Your task to perform on an android device: Open Wikipedia Image 0: 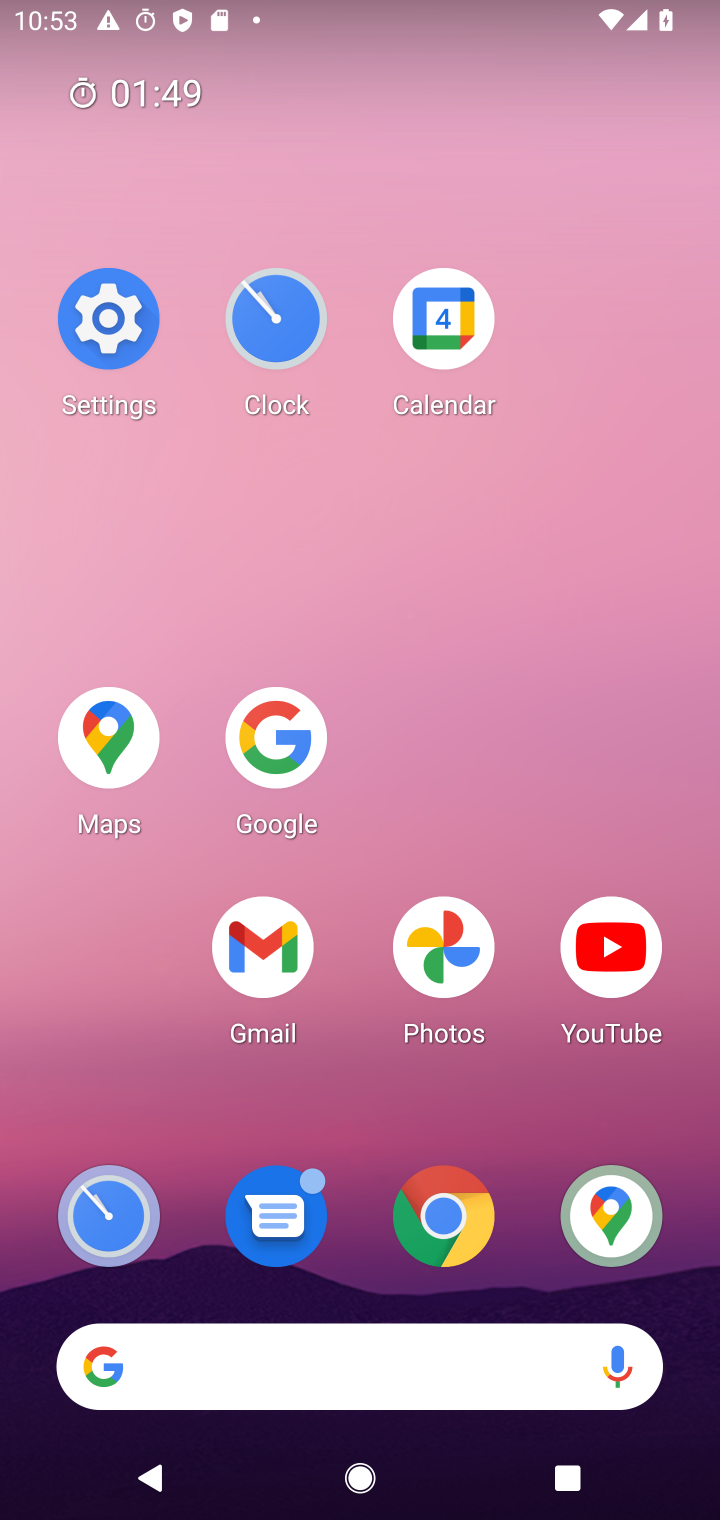
Step 0: click (450, 1197)
Your task to perform on an android device: Open Wikipedia Image 1: 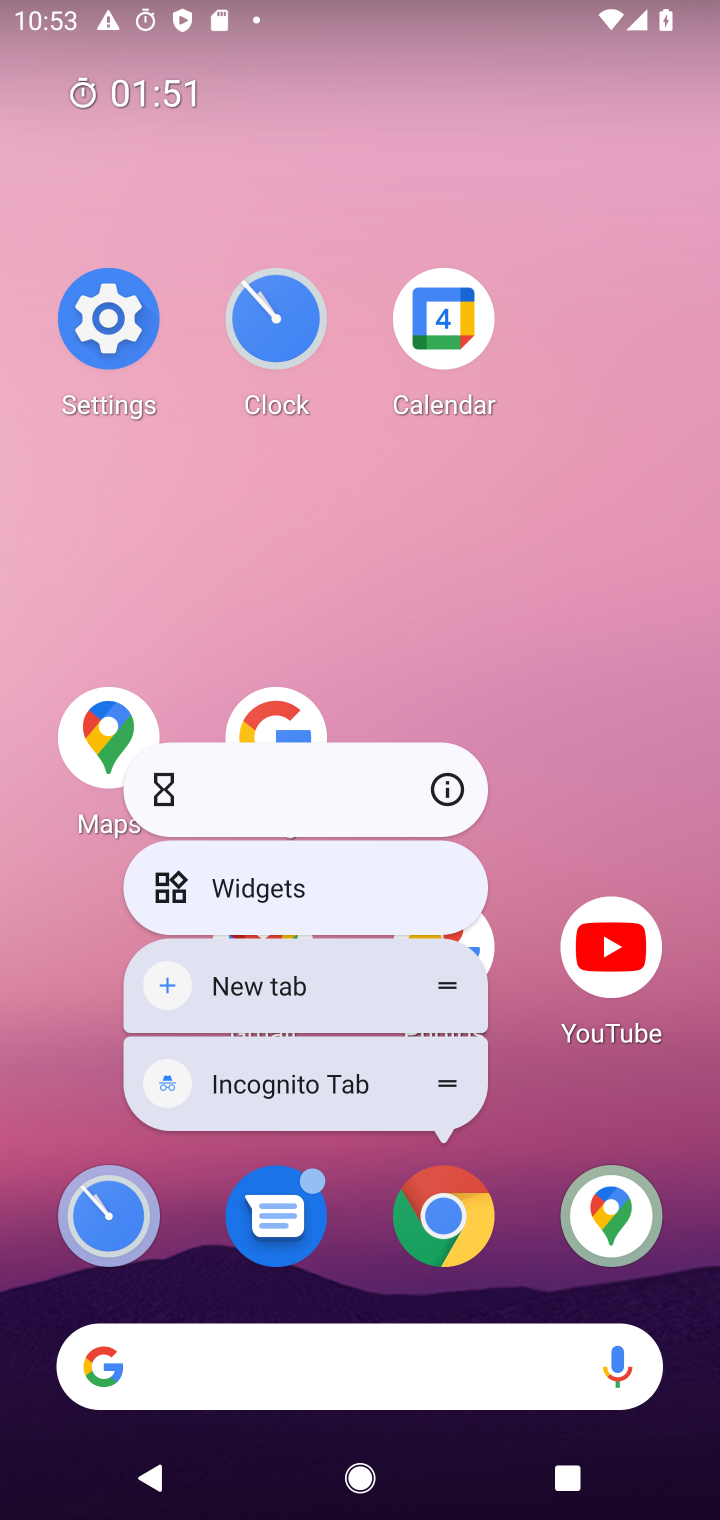
Step 1: click (450, 1197)
Your task to perform on an android device: Open Wikipedia Image 2: 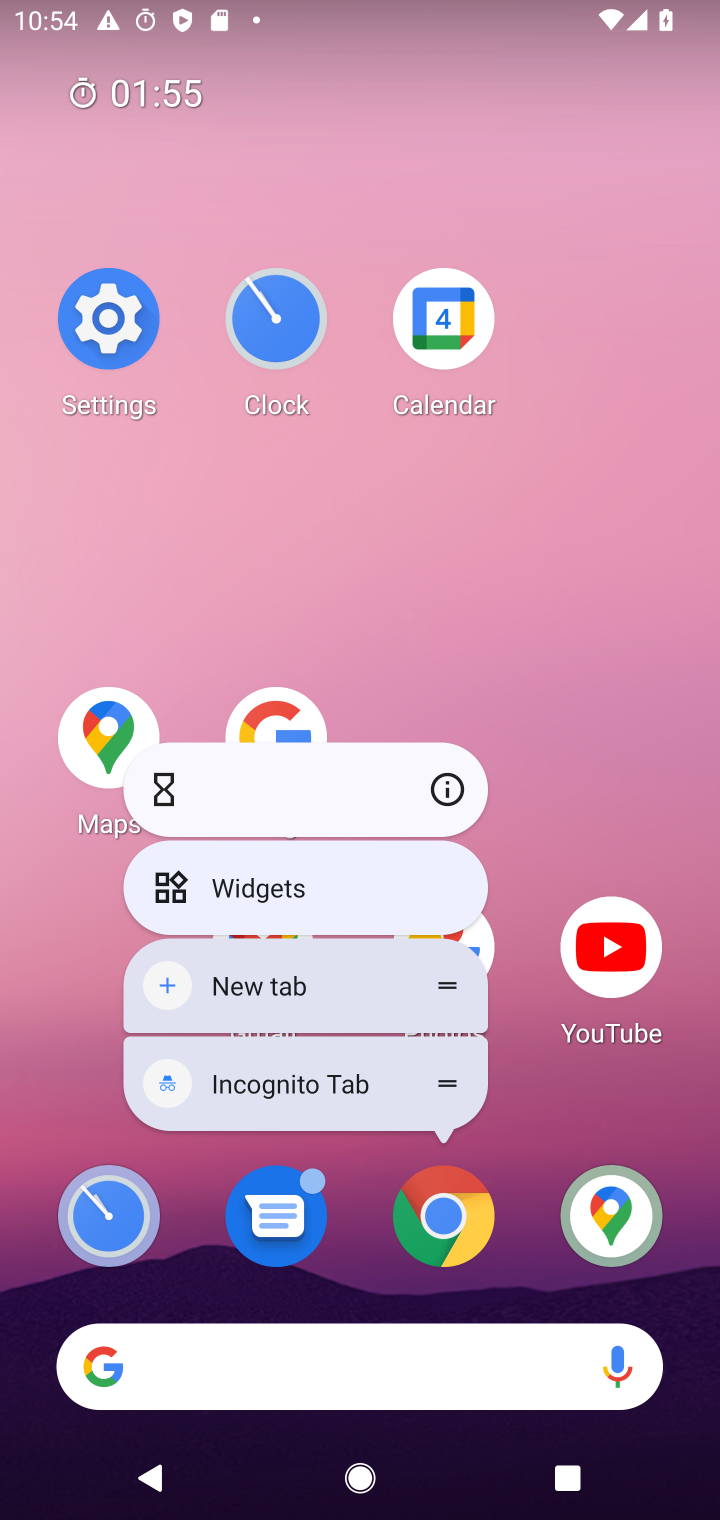
Step 2: click (450, 1197)
Your task to perform on an android device: Open Wikipedia Image 3: 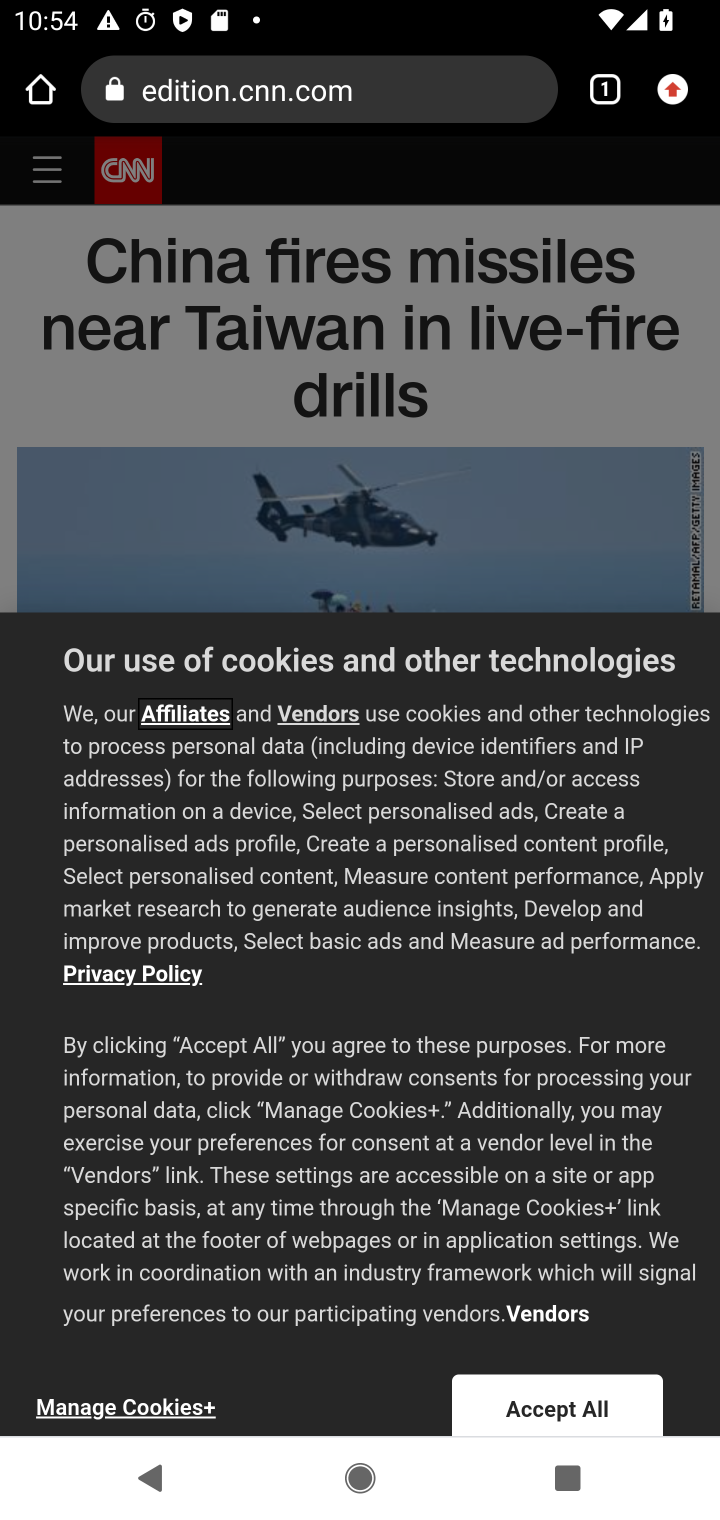
Step 3: click (614, 114)
Your task to perform on an android device: Open Wikipedia Image 4: 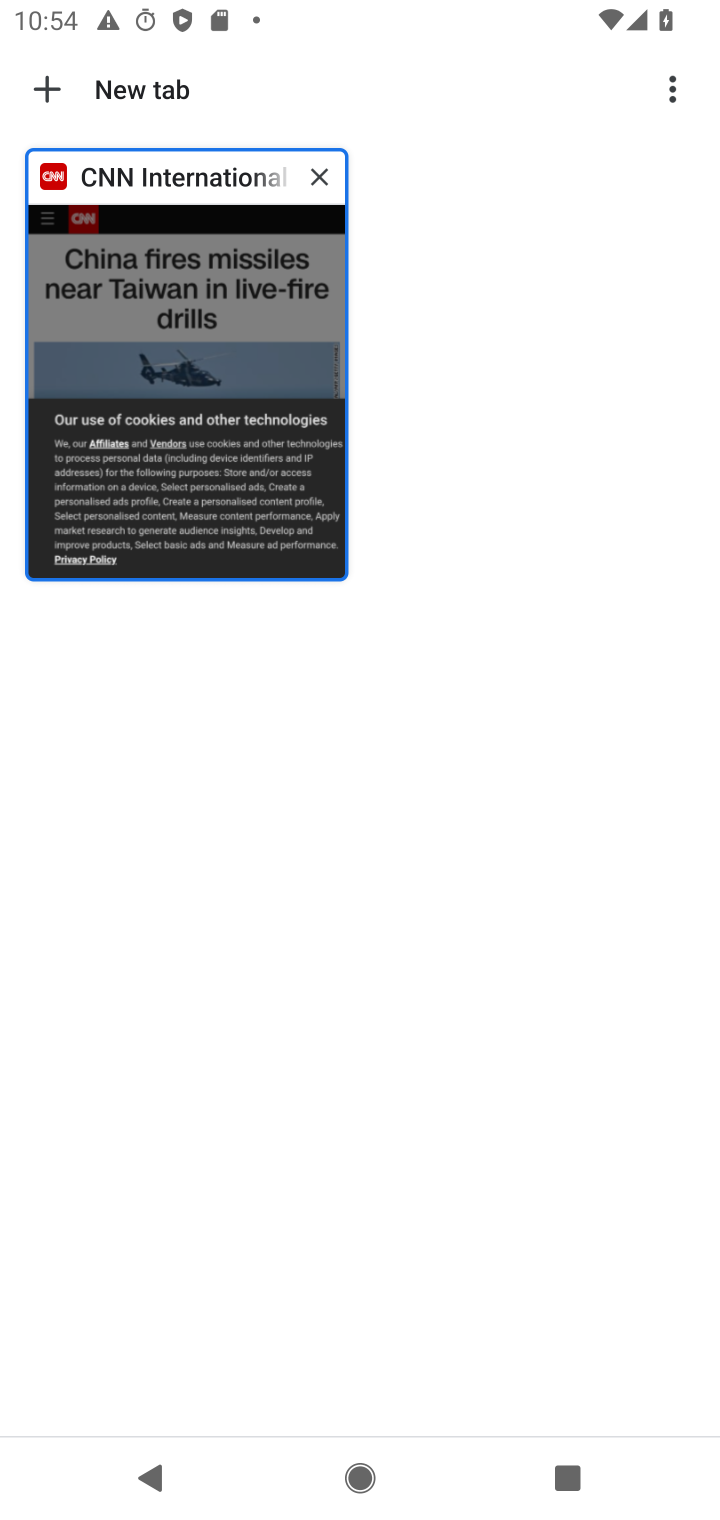
Step 4: click (46, 64)
Your task to perform on an android device: Open Wikipedia Image 5: 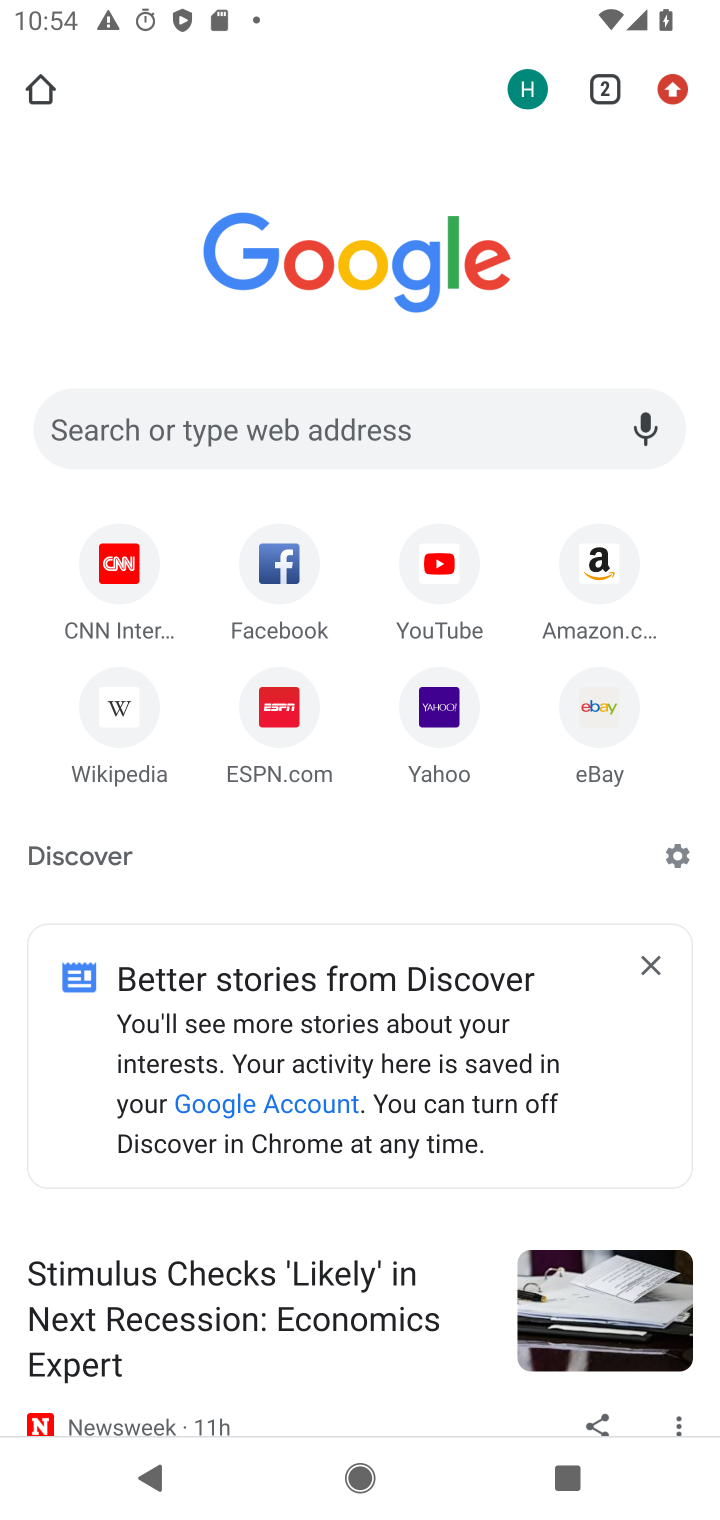
Step 5: click (101, 712)
Your task to perform on an android device: Open Wikipedia Image 6: 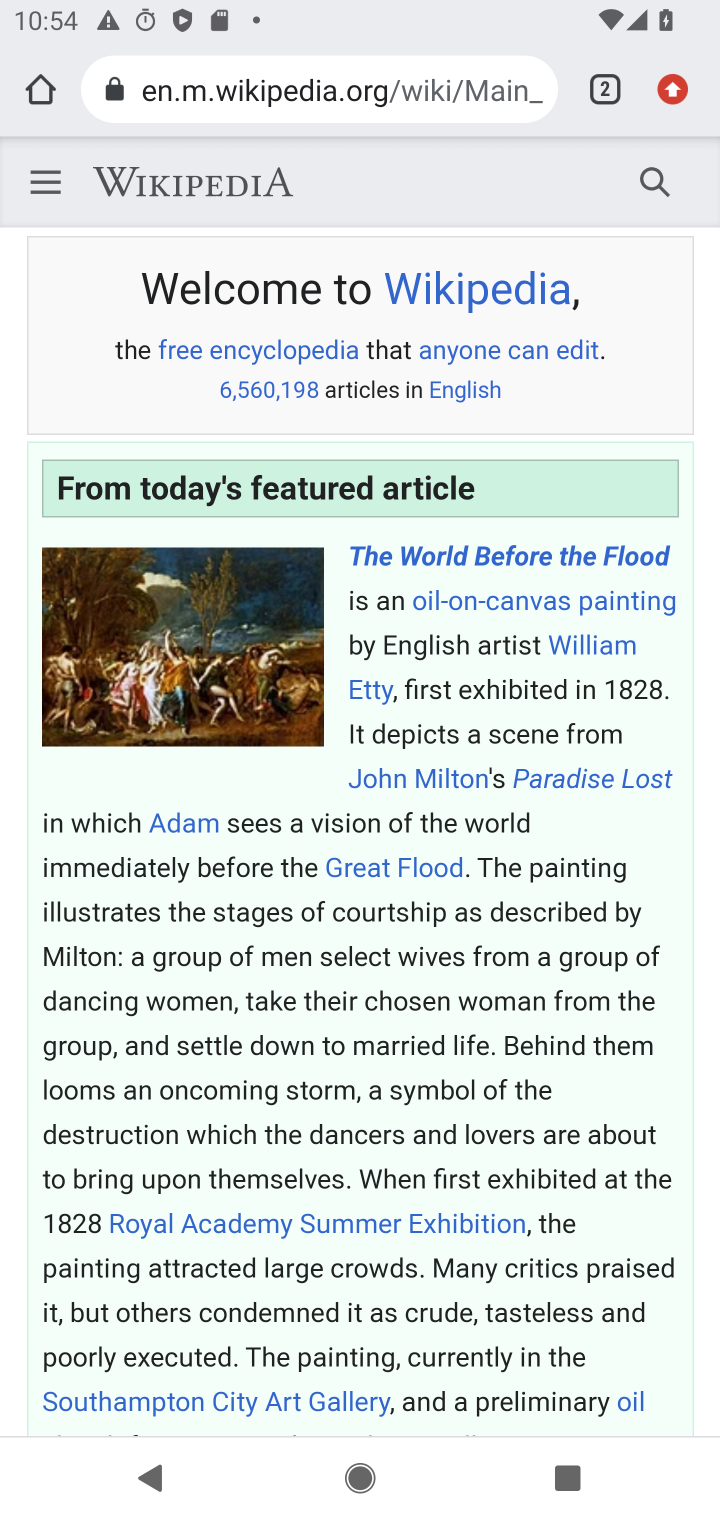
Step 6: task complete